Your task to perform on an android device: toggle translation in the chrome app Image 0: 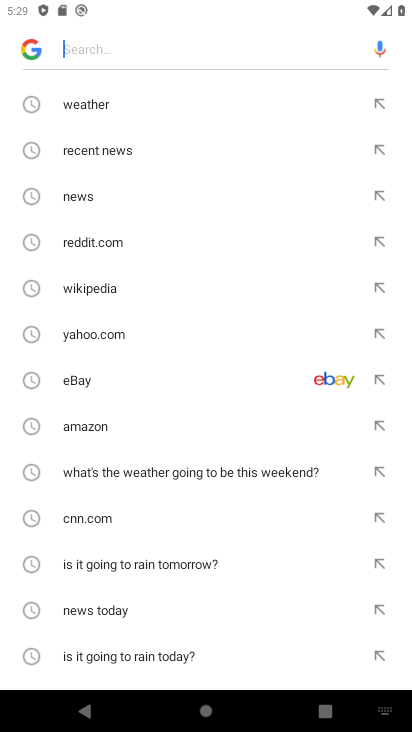
Step 0: press back button
Your task to perform on an android device: toggle translation in the chrome app Image 1: 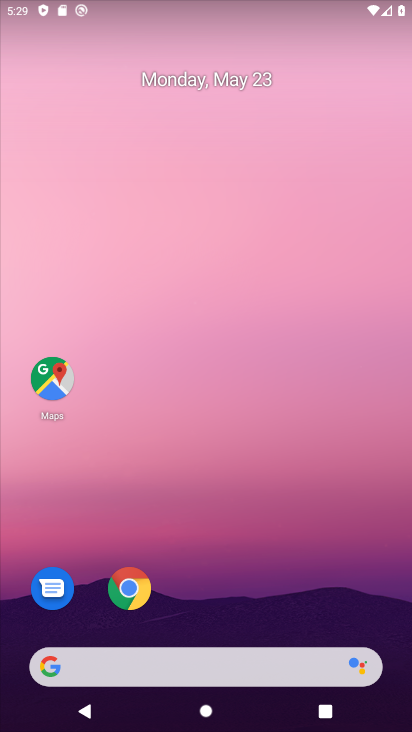
Step 1: drag from (259, 423) to (196, 18)
Your task to perform on an android device: toggle translation in the chrome app Image 2: 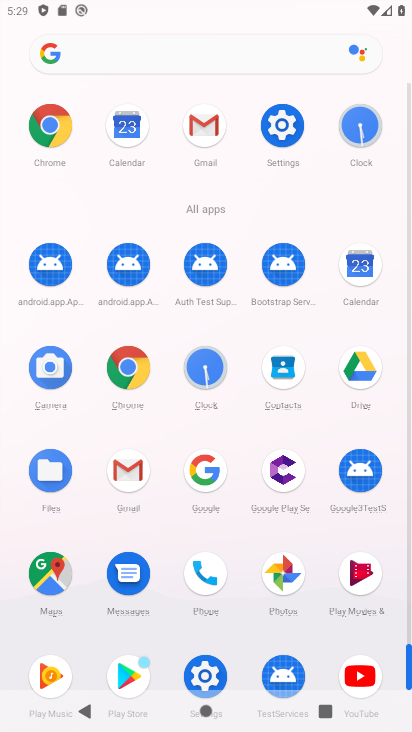
Step 2: drag from (27, 493) to (5, 235)
Your task to perform on an android device: toggle translation in the chrome app Image 3: 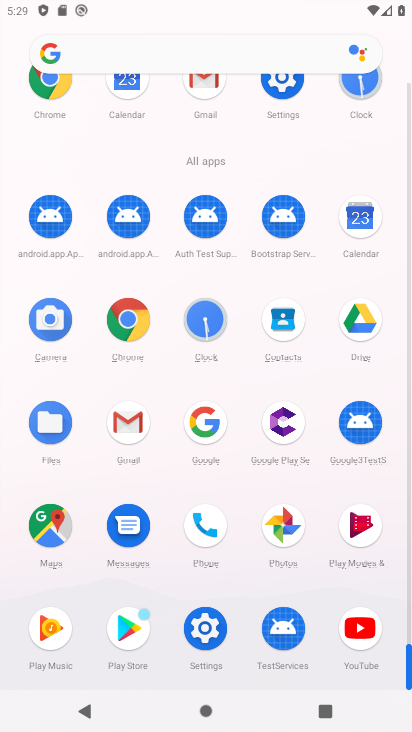
Step 3: drag from (7, 552) to (8, 289)
Your task to perform on an android device: toggle translation in the chrome app Image 4: 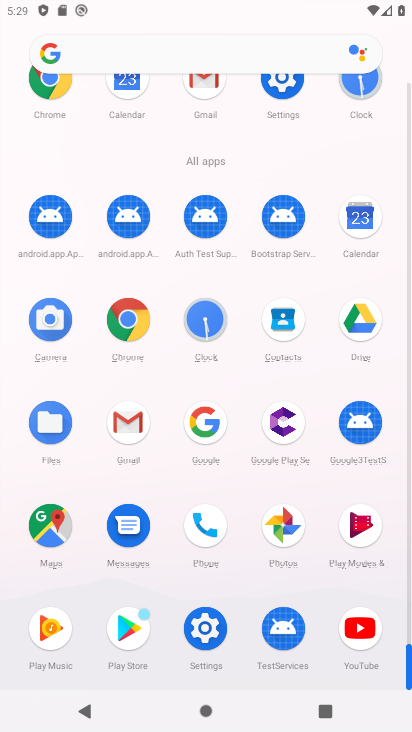
Step 4: click (128, 319)
Your task to perform on an android device: toggle translation in the chrome app Image 5: 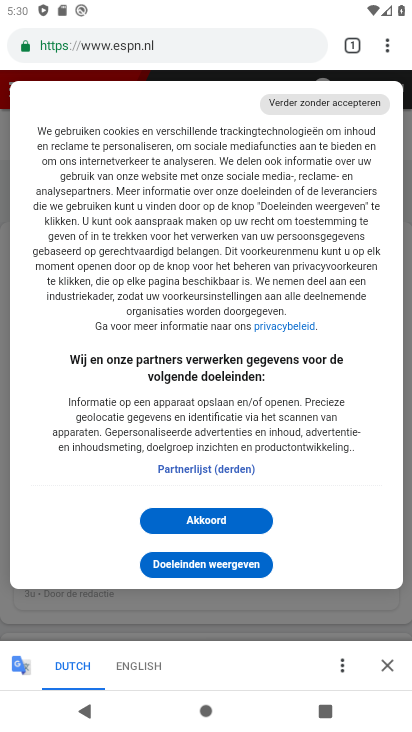
Step 5: drag from (385, 50) to (228, 552)
Your task to perform on an android device: toggle translation in the chrome app Image 6: 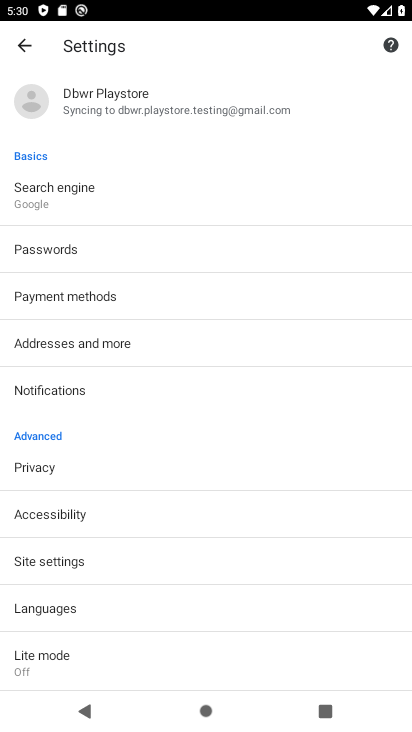
Step 6: drag from (231, 516) to (224, 195)
Your task to perform on an android device: toggle translation in the chrome app Image 7: 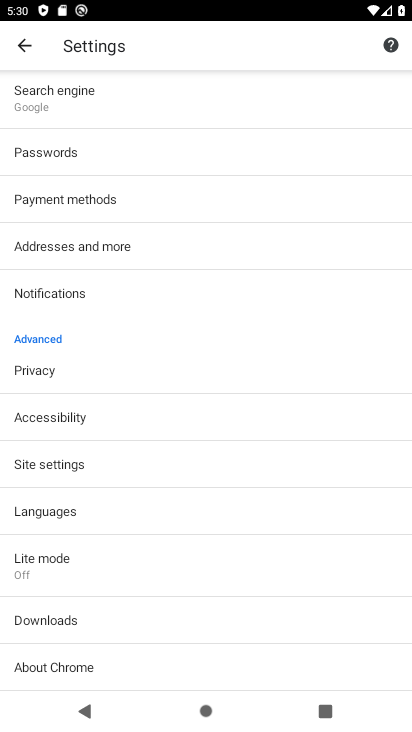
Step 7: click (72, 499)
Your task to perform on an android device: toggle translation in the chrome app Image 8: 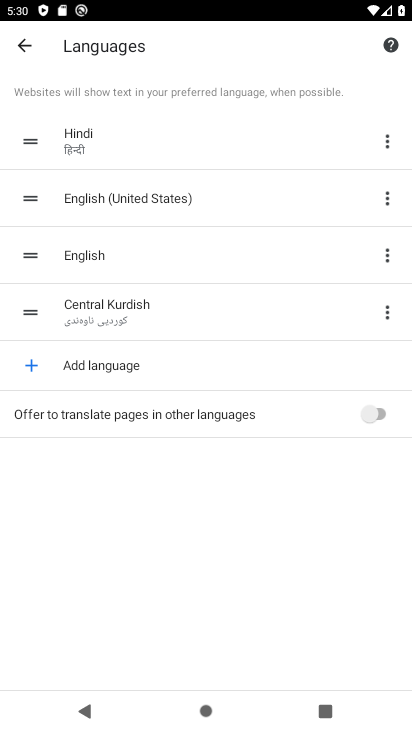
Step 8: click (375, 410)
Your task to perform on an android device: toggle translation in the chrome app Image 9: 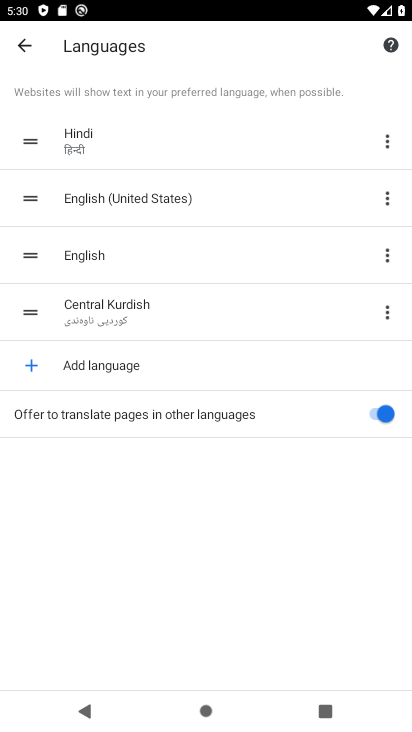
Step 9: task complete